Your task to perform on an android device: add a label to a message in the gmail app Image 0: 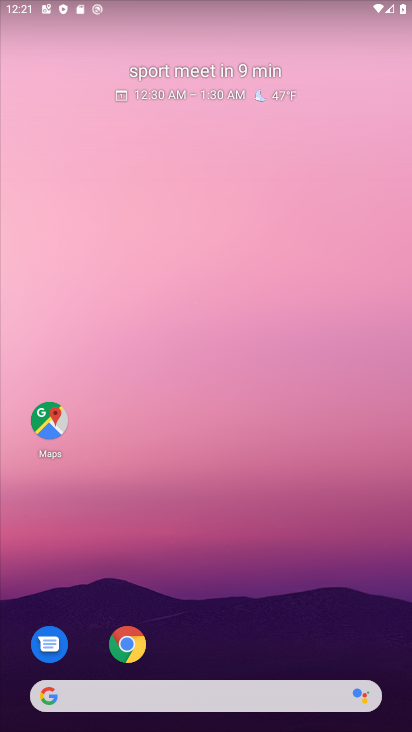
Step 0: drag from (202, 670) to (353, 56)
Your task to perform on an android device: add a label to a message in the gmail app Image 1: 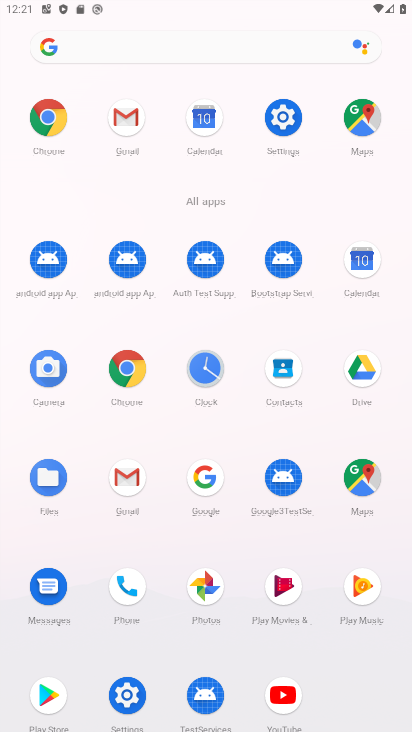
Step 1: click (124, 480)
Your task to perform on an android device: add a label to a message in the gmail app Image 2: 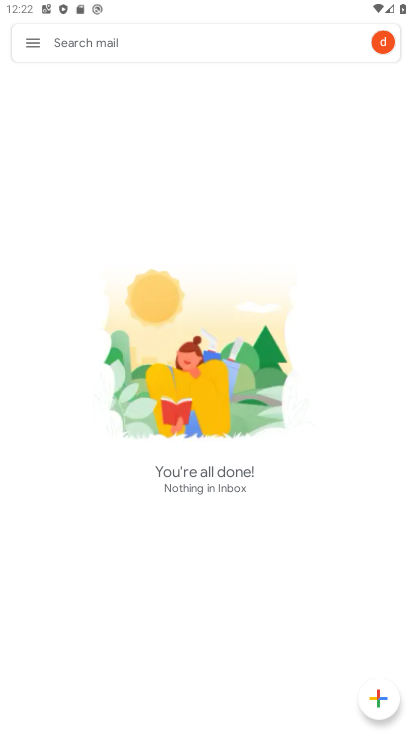
Step 2: click (34, 46)
Your task to perform on an android device: add a label to a message in the gmail app Image 3: 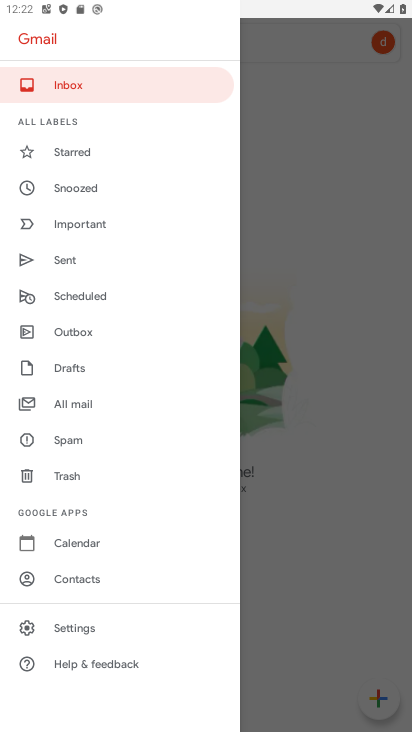
Step 3: click (108, 408)
Your task to perform on an android device: add a label to a message in the gmail app Image 4: 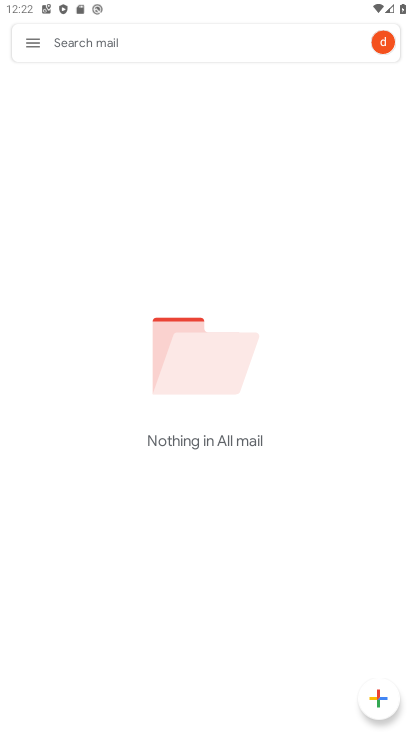
Step 4: task complete